Your task to perform on an android device: open app "Spotify" (install if not already installed), go to login, and select forgot password Image 0: 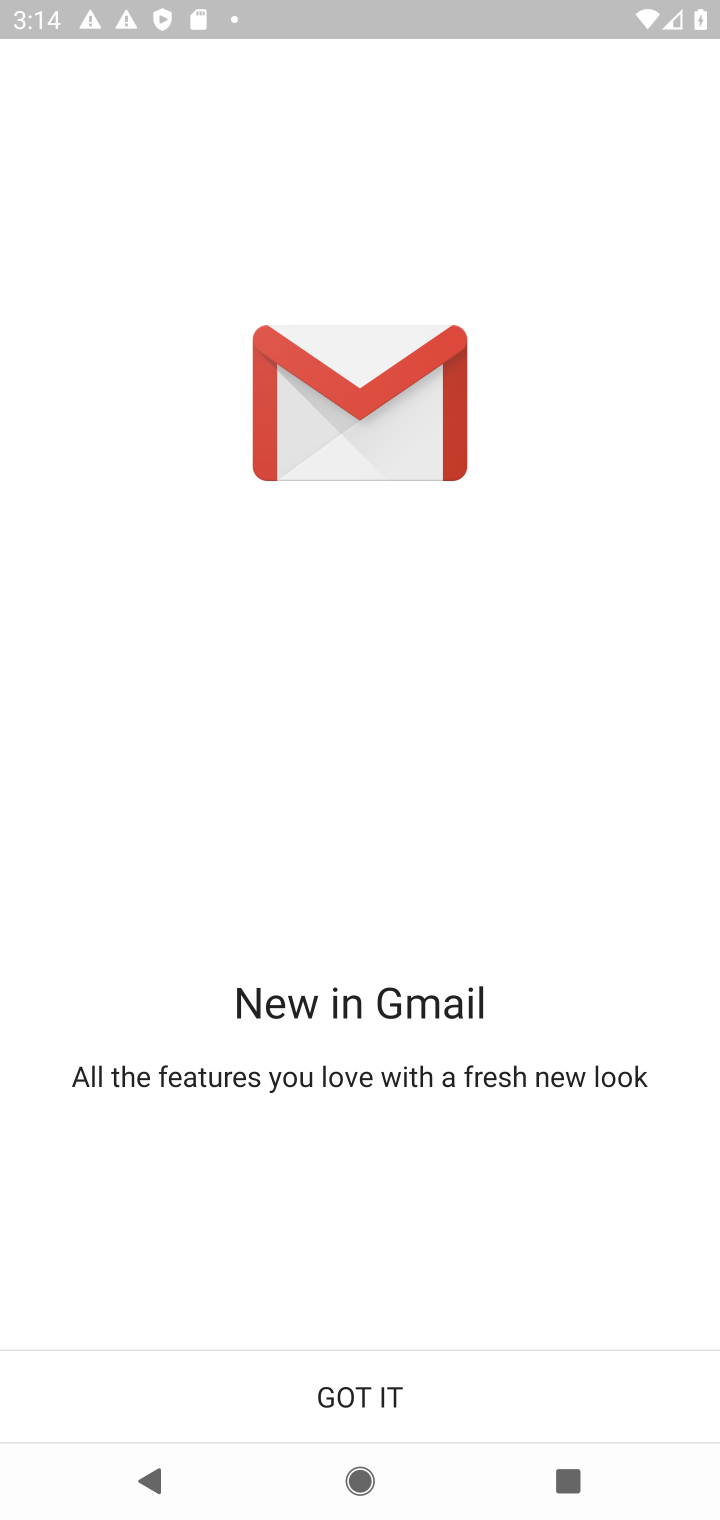
Step 0: press home button
Your task to perform on an android device: open app "Spotify" (install if not already installed), go to login, and select forgot password Image 1: 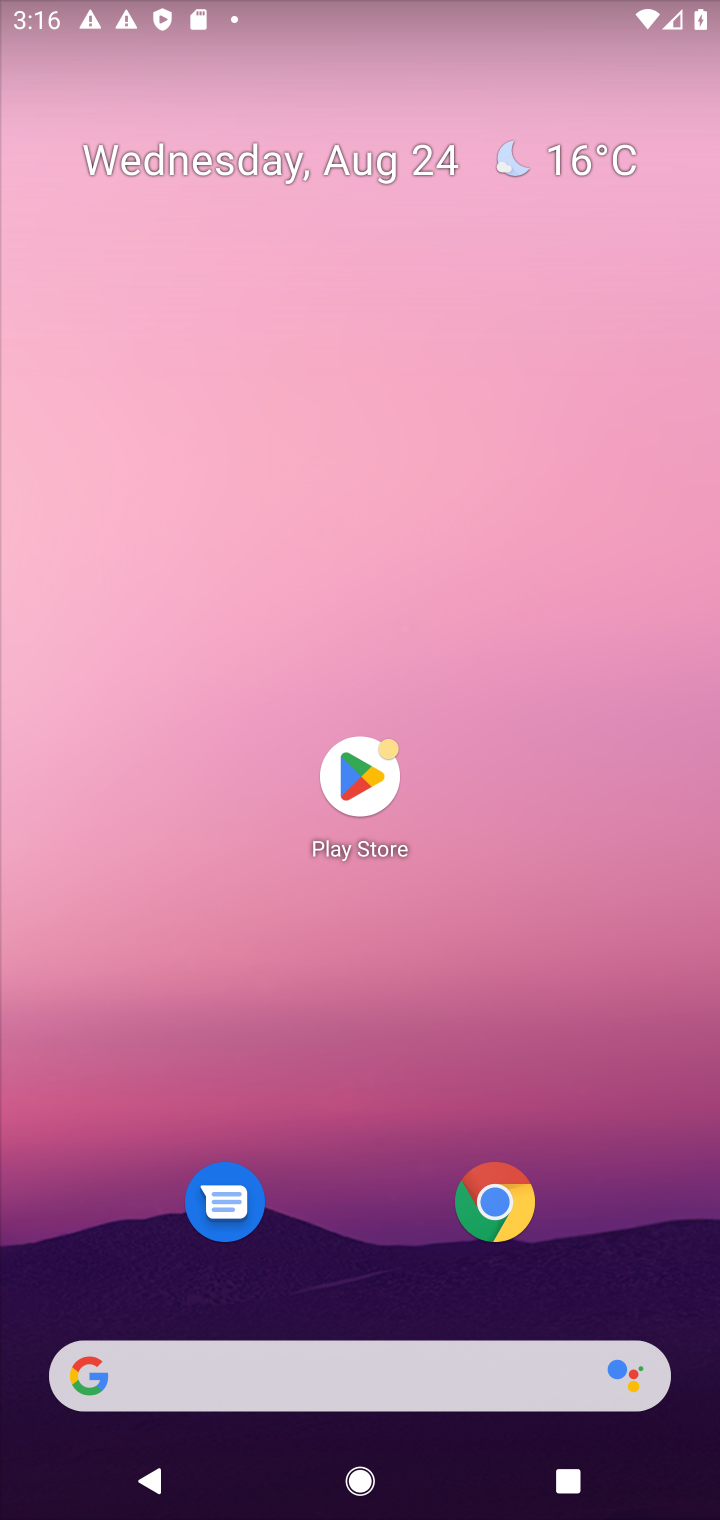
Step 1: click (354, 769)
Your task to perform on an android device: open app "Spotify" (install if not already installed), go to login, and select forgot password Image 2: 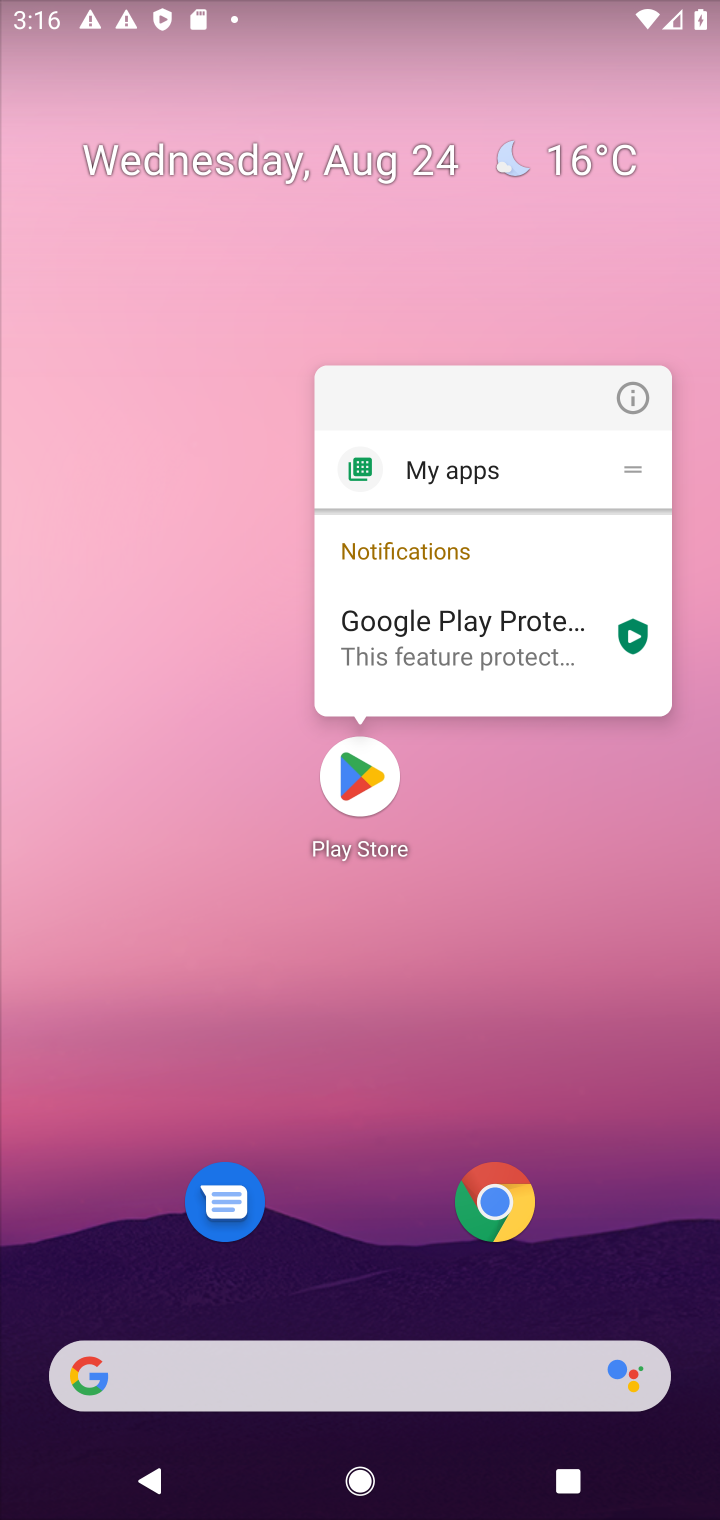
Step 2: click (354, 777)
Your task to perform on an android device: open app "Spotify" (install if not already installed), go to login, and select forgot password Image 3: 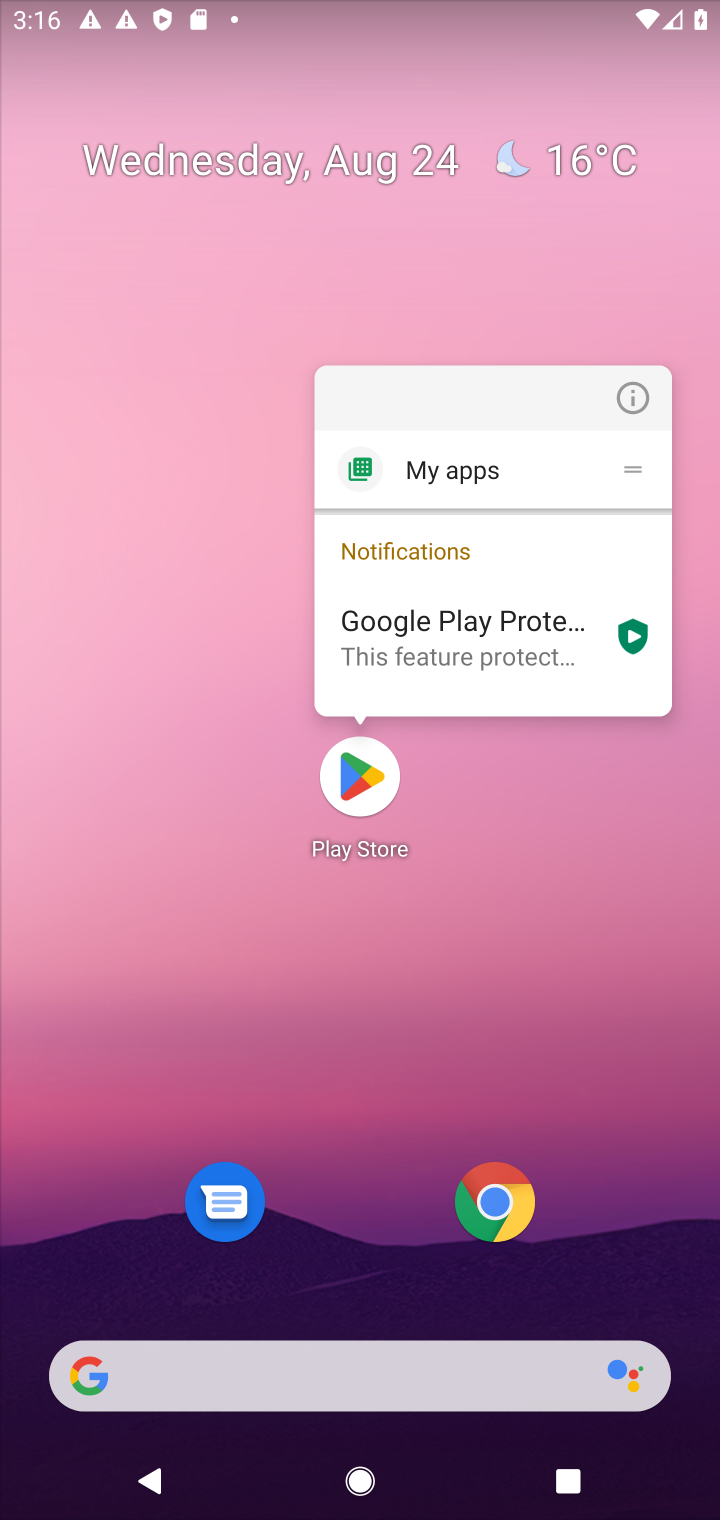
Step 3: click (354, 769)
Your task to perform on an android device: open app "Spotify" (install if not already installed), go to login, and select forgot password Image 4: 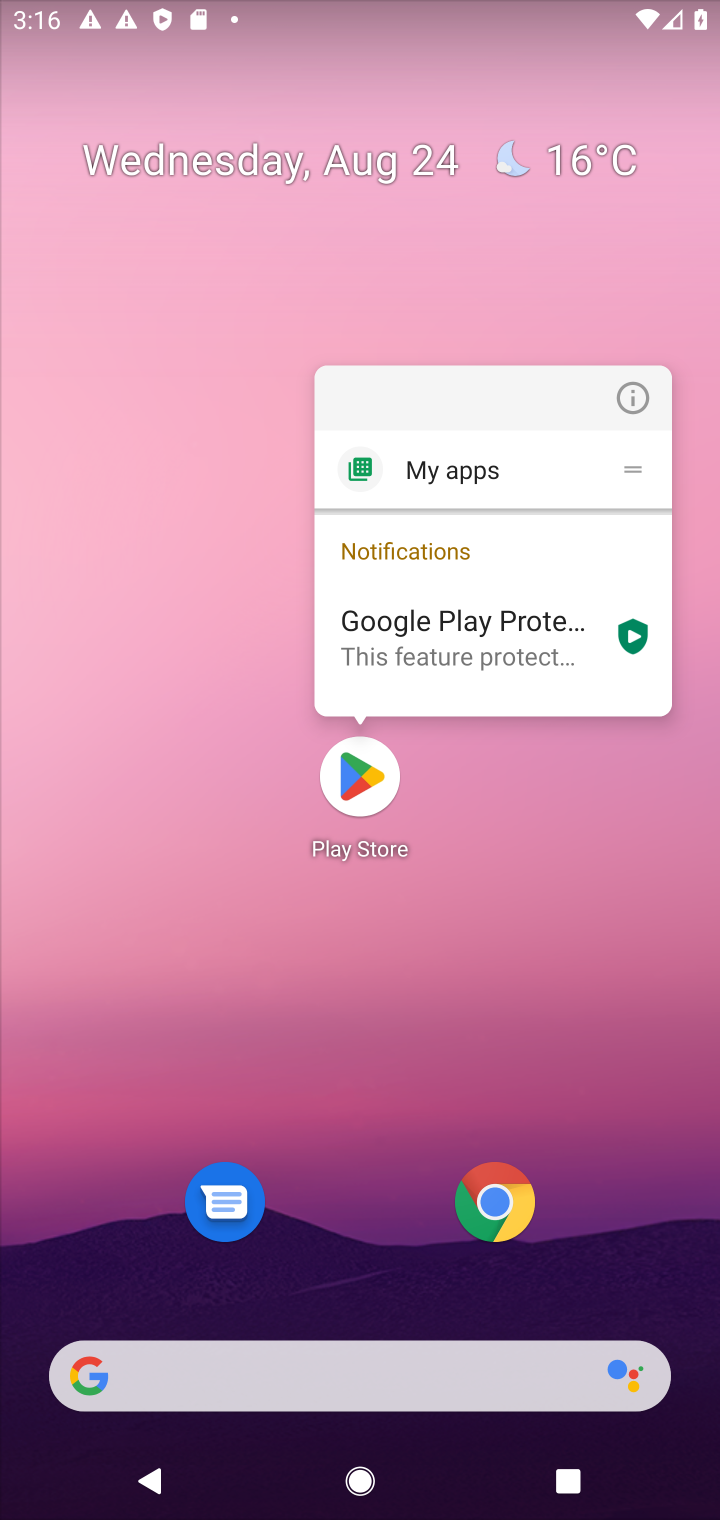
Step 4: click (354, 778)
Your task to perform on an android device: open app "Spotify" (install if not already installed), go to login, and select forgot password Image 5: 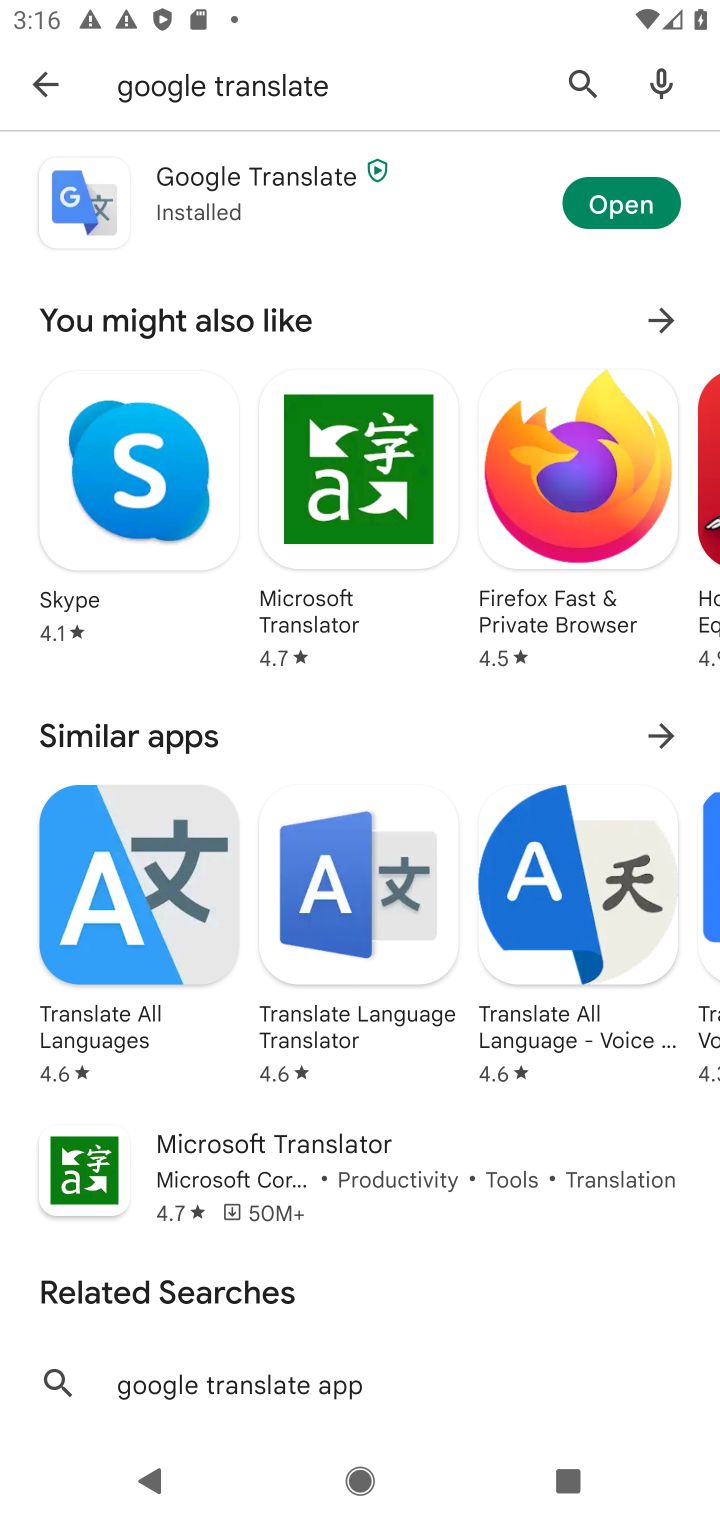
Step 5: click (584, 68)
Your task to perform on an android device: open app "Spotify" (install if not already installed), go to login, and select forgot password Image 6: 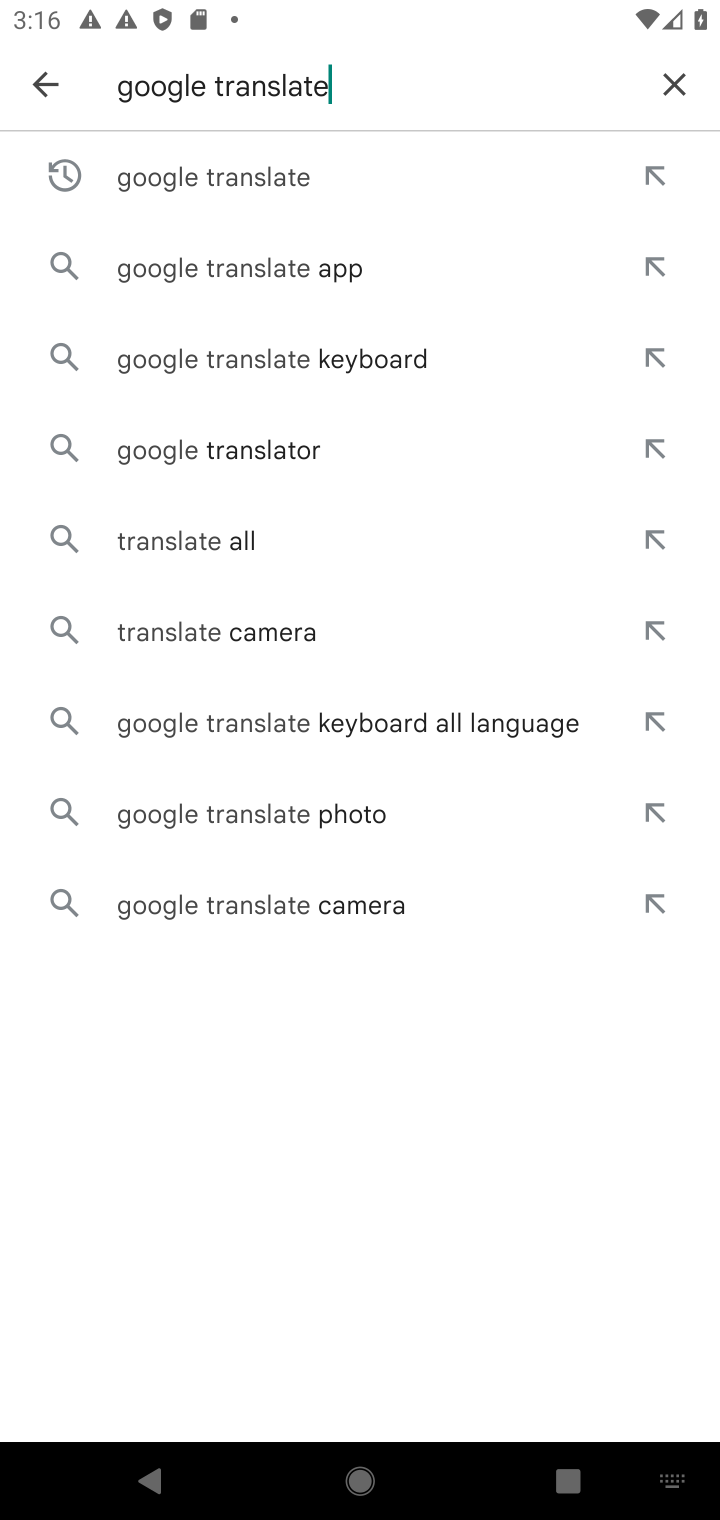
Step 6: click (676, 81)
Your task to perform on an android device: open app "Spotify" (install if not already installed), go to login, and select forgot password Image 7: 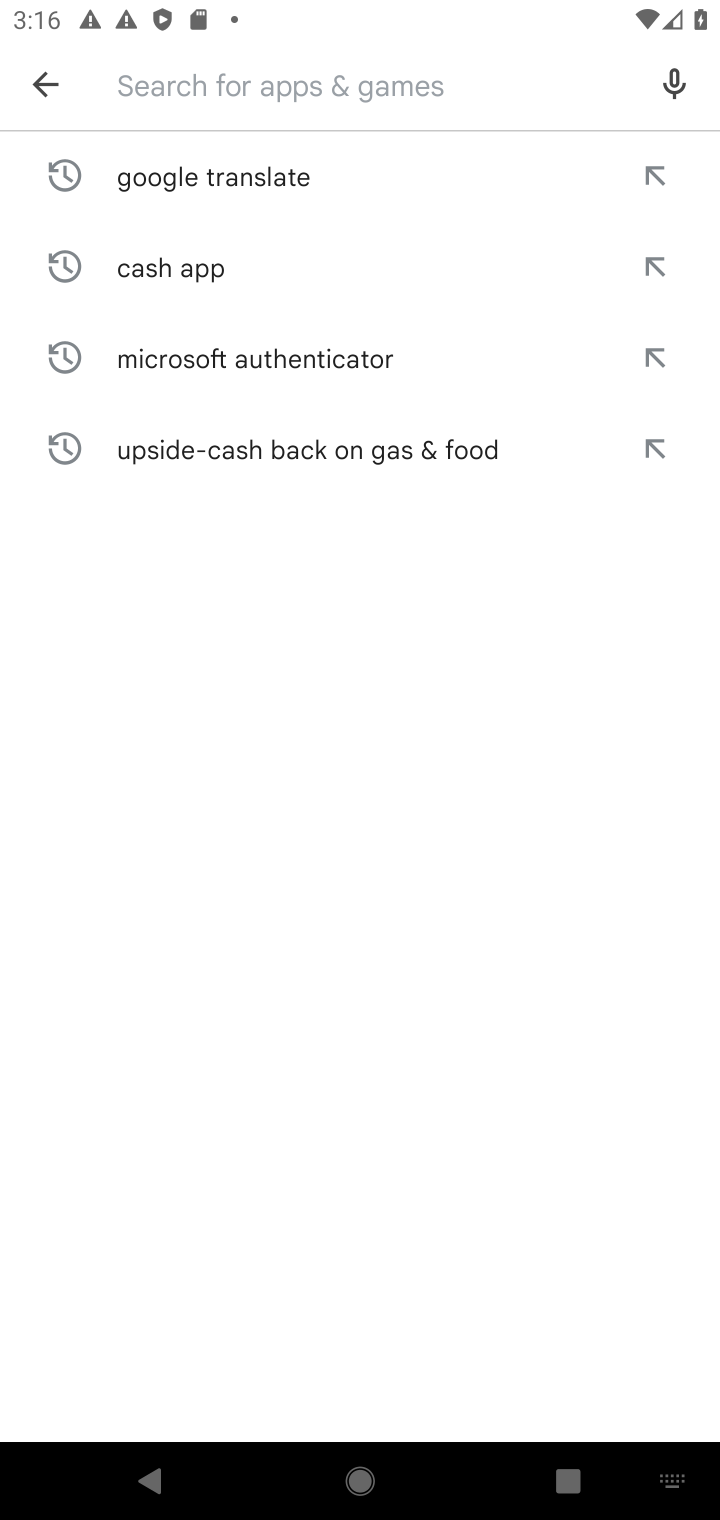
Step 7: type "Spotify"
Your task to perform on an android device: open app "Spotify" (install if not already installed), go to login, and select forgot password Image 8: 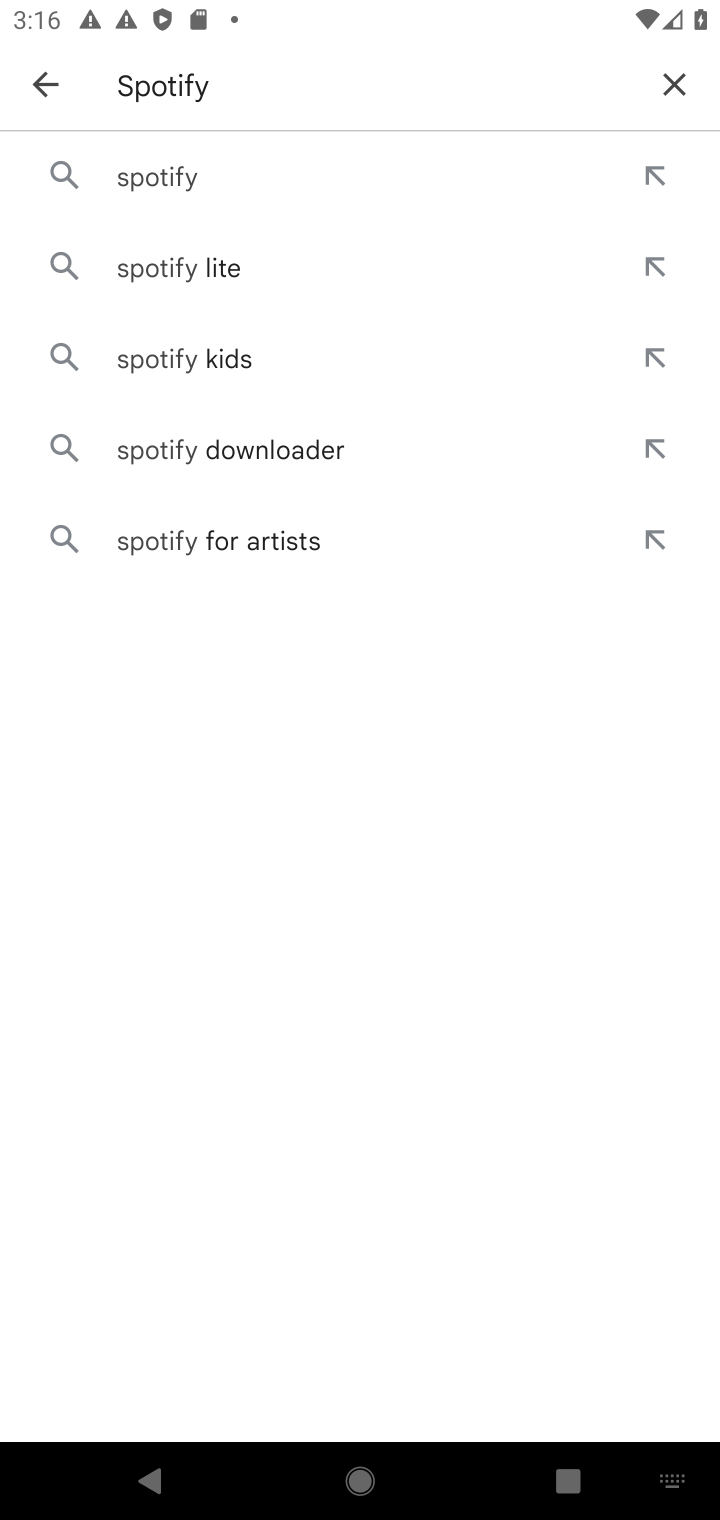
Step 8: click (173, 177)
Your task to perform on an android device: open app "Spotify" (install if not already installed), go to login, and select forgot password Image 9: 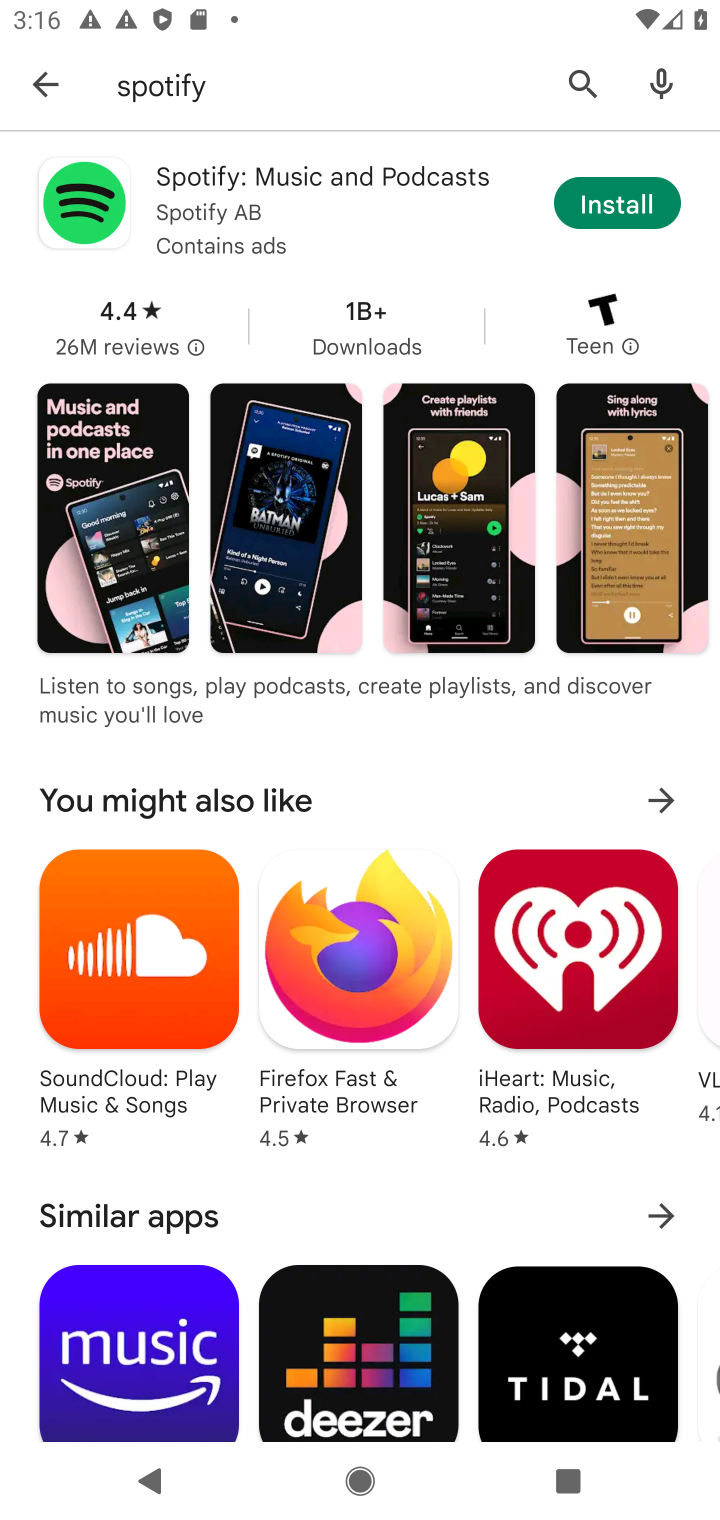
Step 9: click (603, 198)
Your task to perform on an android device: open app "Spotify" (install if not already installed), go to login, and select forgot password Image 10: 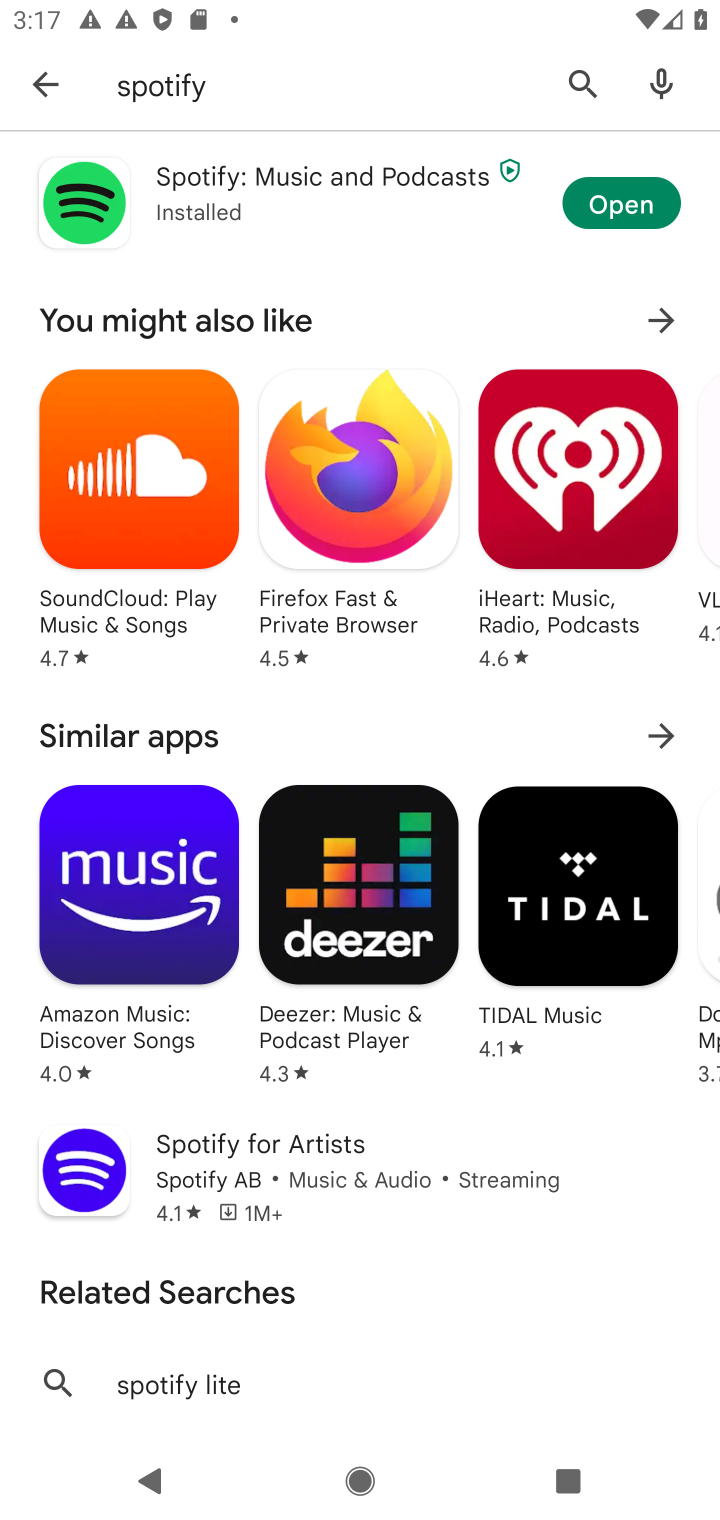
Step 10: click (619, 197)
Your task to perform on an android device: open app "Spotify" (install if not already installed), go to login, and select forgot password Image 11: 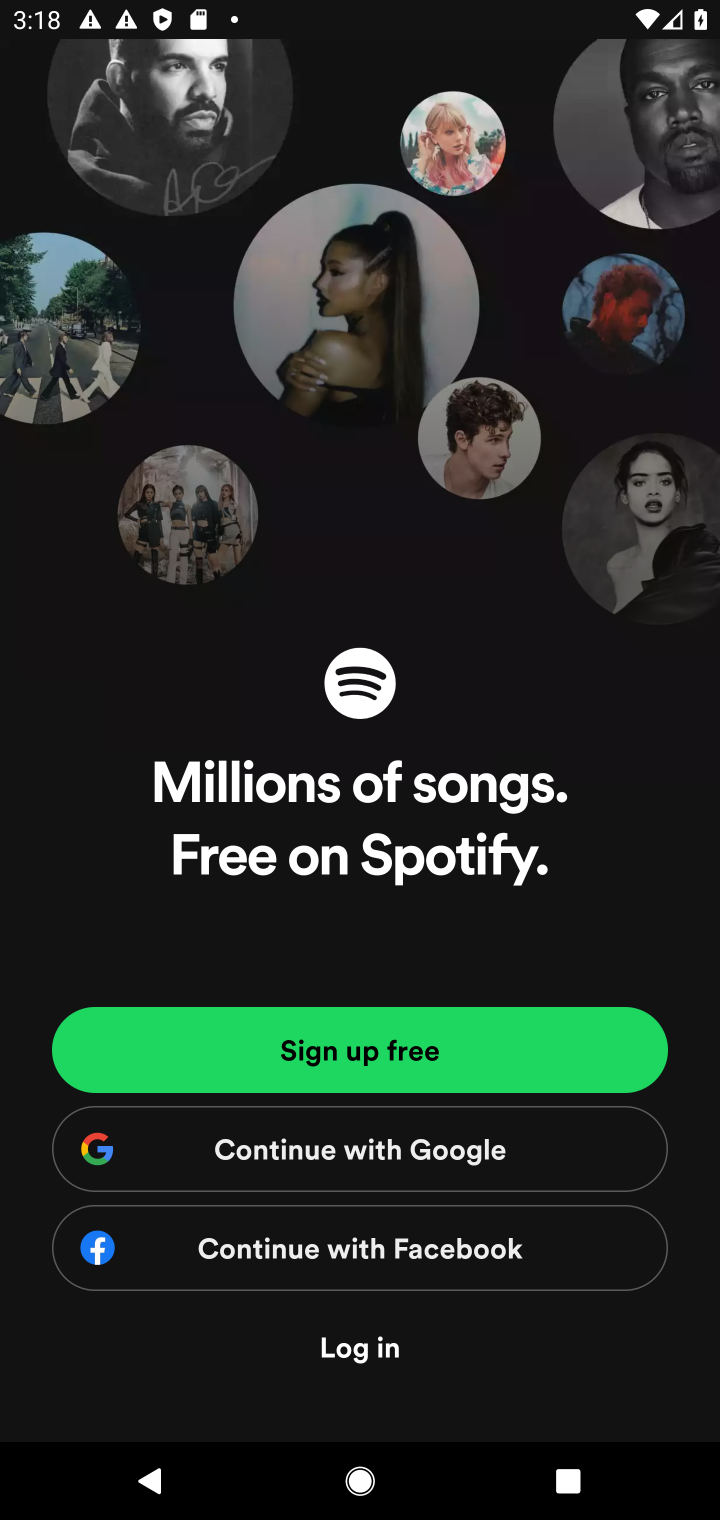
Step 11: click (352, 1357)
Your task to perform on an android device: open app "Spotify" (install if not already installed), go to login, and select forgot password Image 12: 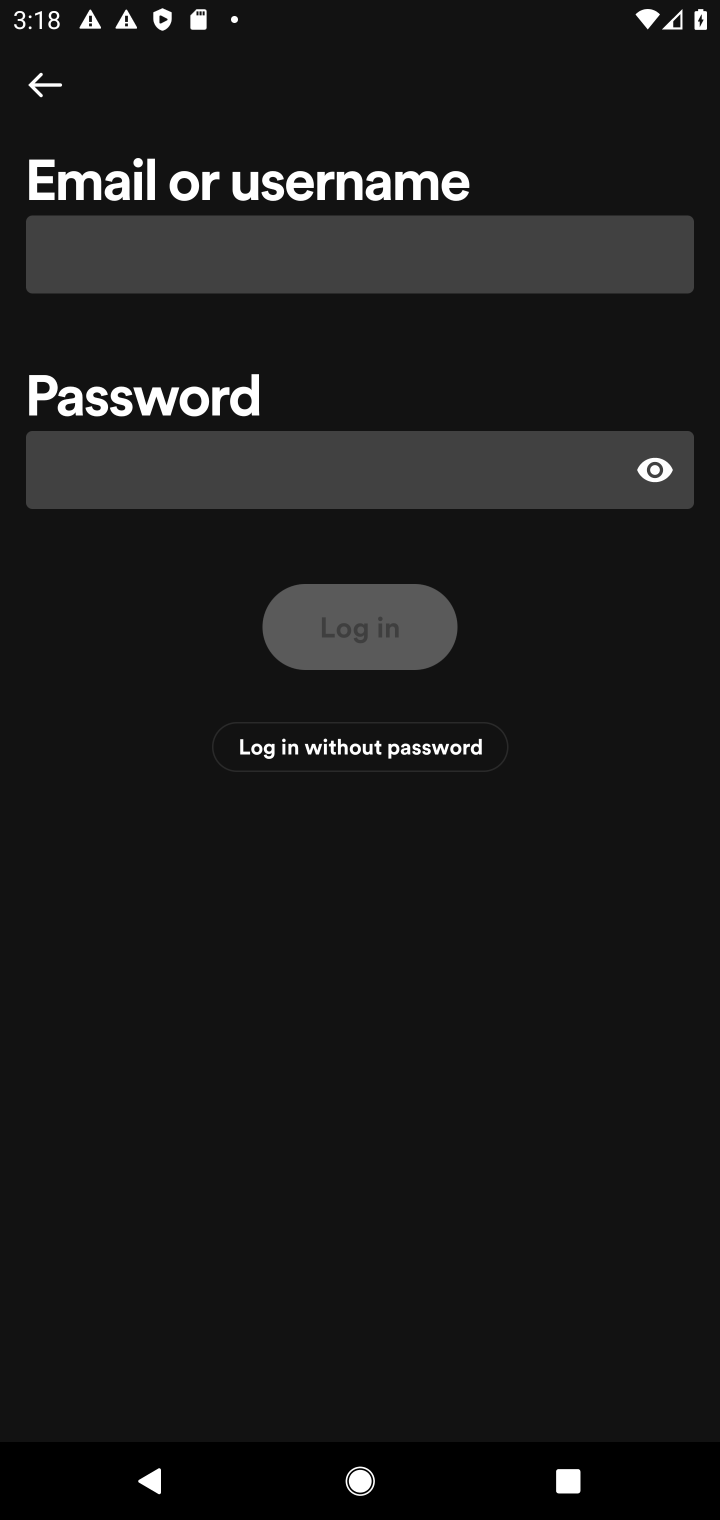
Step 12: task complete